Your task to perform on an android device: remove spam from my inbox in the gmail app Image 0: 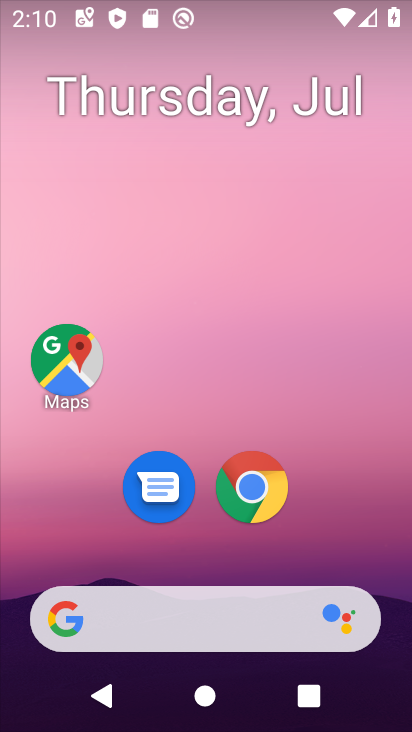
Step 0: drag from (394, 567) to (378, 319)
Your task to perform on an android device: remove spam from my inbox in the gmail app Image 1: 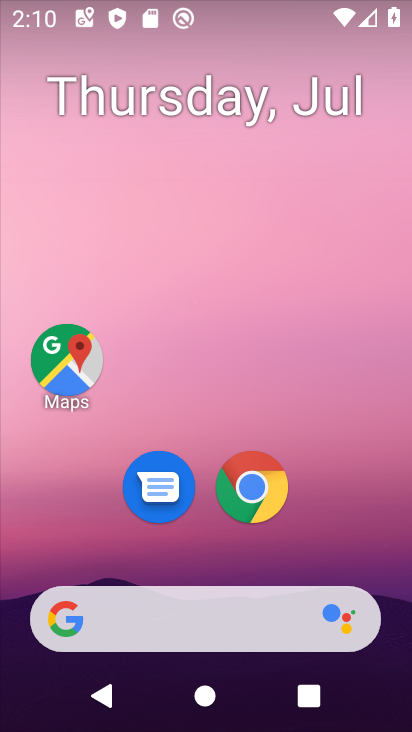
Step 1: drag from (370, 557) to (371, 258)
Your task to perform on an android device: remove spam from my inbox in the gmail app Image 2: 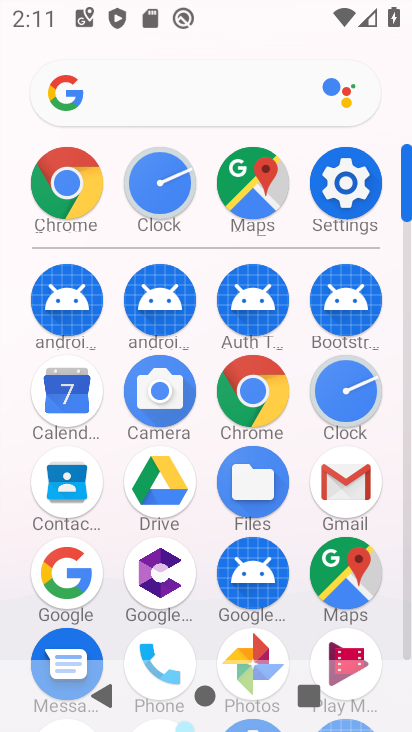
Step 2: click (345, 480)
Your task to perform on an android device: remove spam from my inbox in the gmail app Image 3: 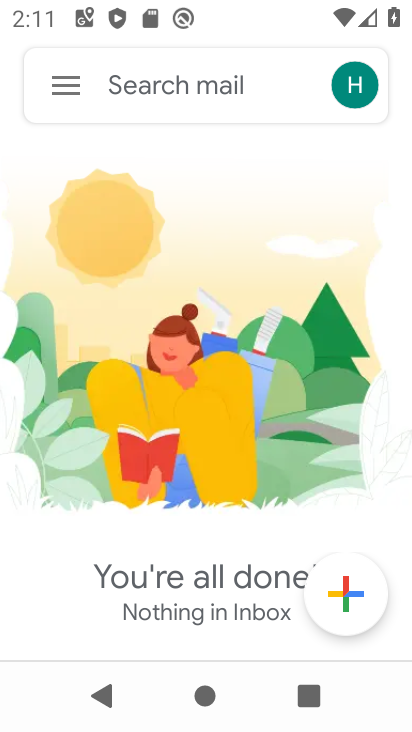
Step 3: click (72, 82)
Your task to perform on an android device: remove spam from my inbox in the gmail app Image 4: 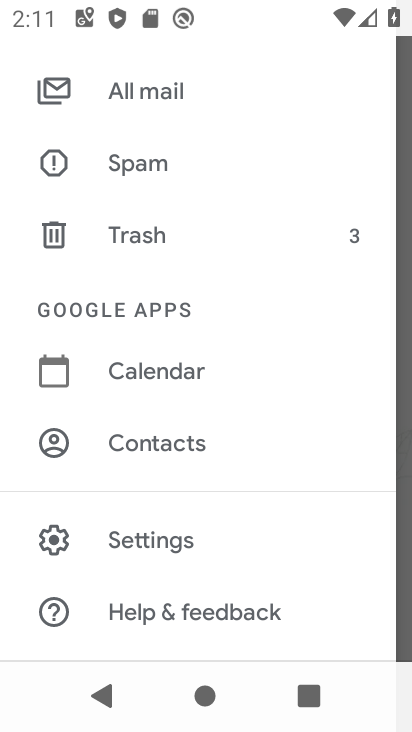
Step 4: drag from (277, 397) to (282, 325)
Your task to perform on an android device: remove spam from my inbox in the gmail app Image 5: 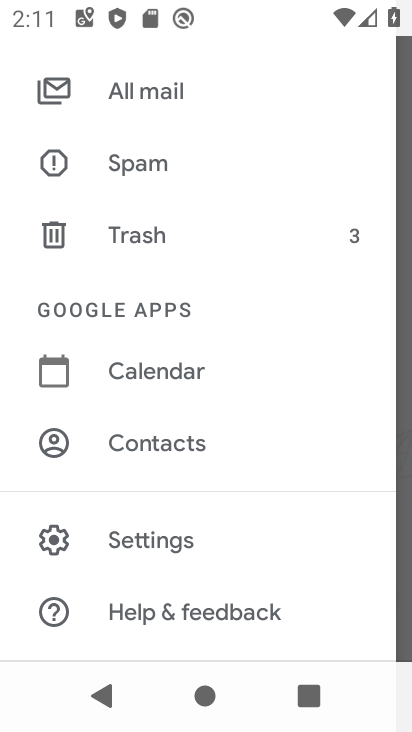
Step 5: click (290, 400)
Your task to perform on an android device: remove spam from my inbox in the gmail app Image 6: 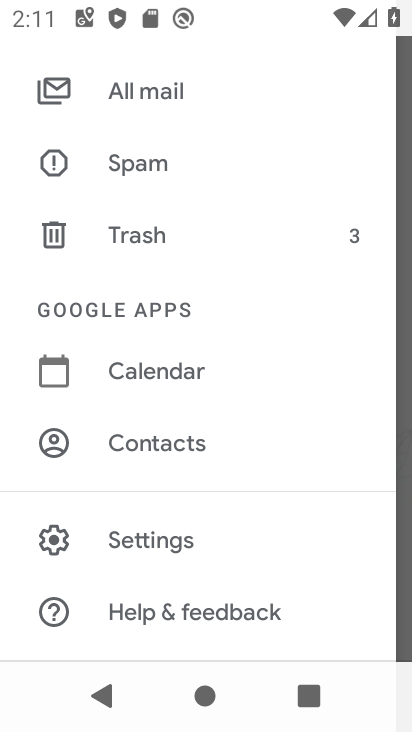
Step 6: drag from (302, 428) to (304, 368)
Your task to perform on an android device: remove spam from my inbox in the gmail app Image 7: 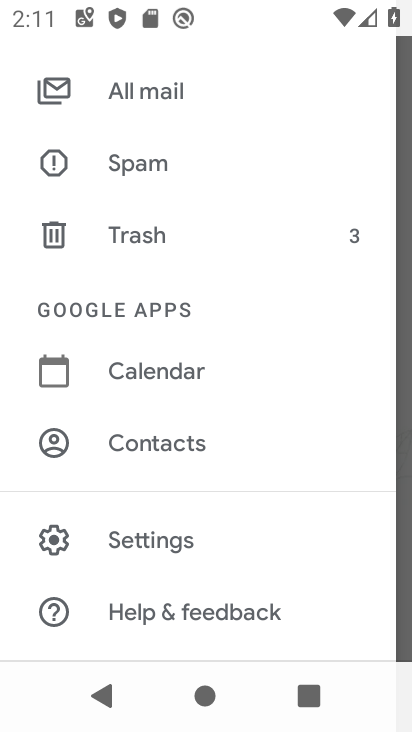
Step 7: drag from (325, 420) to (322, 352)
Your task to perform on an android device: remove spam from my inbox in the gmail app Image 8: 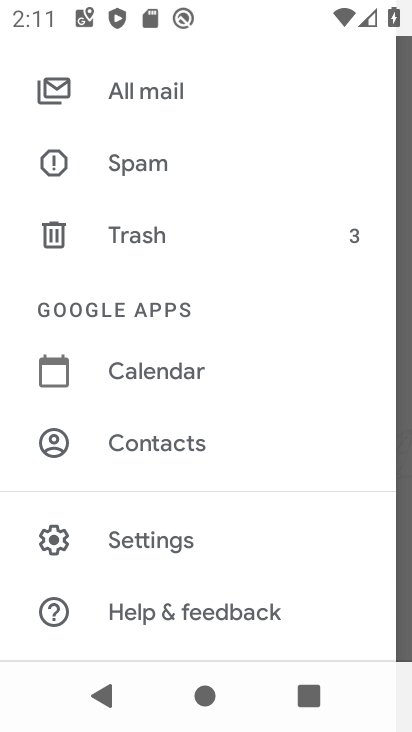
Step 8: drag from (333, 304) to (334, 342)
Your task to perform on an android device: remove spam from my inbox in the gmail app Image 9: 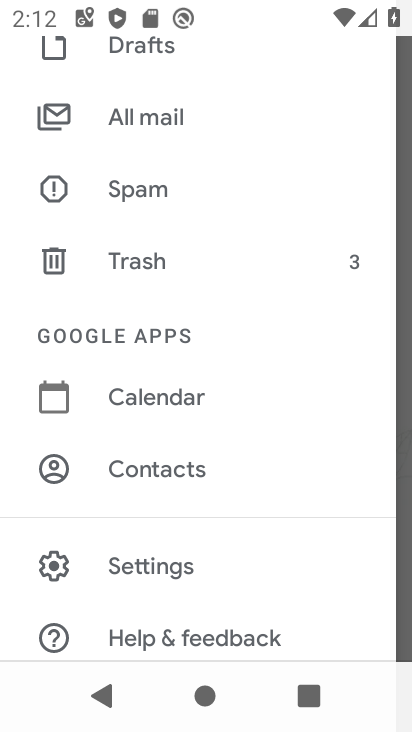
Step 9: click (355, 287)
Your task to perform on an android device: remove spam from my inbox in the gmail app Image 10: 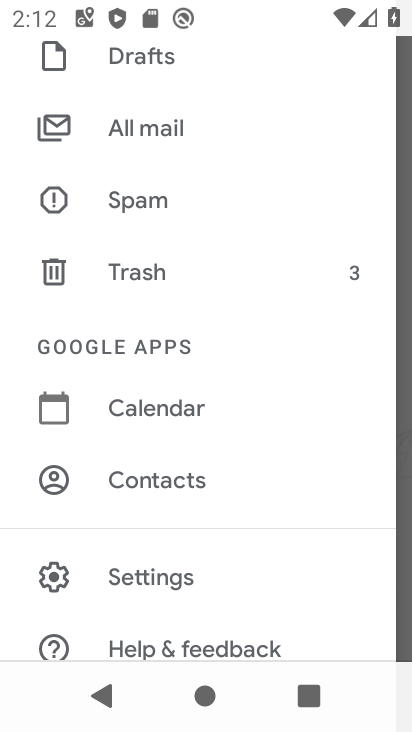
Step 10: drag from (357, 473) to (353, 379)
Your task to perform on an android device: remove spam from my inbox in the gmail app Image 11: 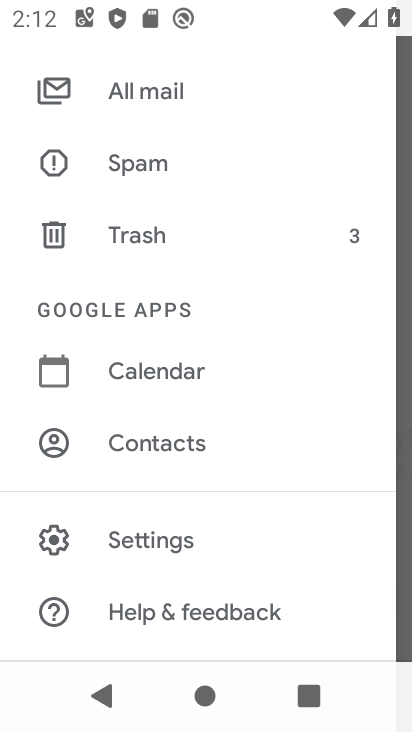
Step 11: click (192, 171)
Your task to perform on an android device: remove spam from my inbox in the gmail app Image 12: 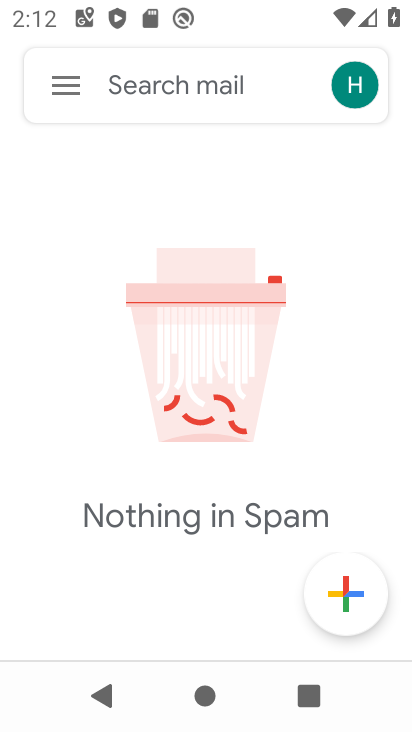
Step 12: click (192, 171)
Your task to perform on an android device: remove spam from my inbox in the gmail app Image 13: 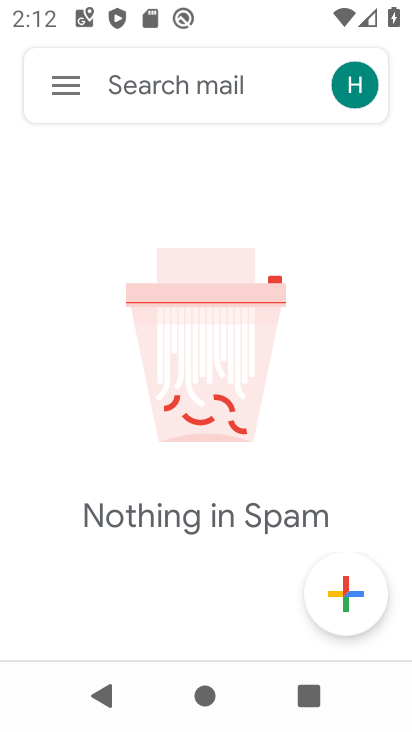
Step 13: task complete